Your task to perform on an android device: stop showing notifications on the lock screen Image 0: 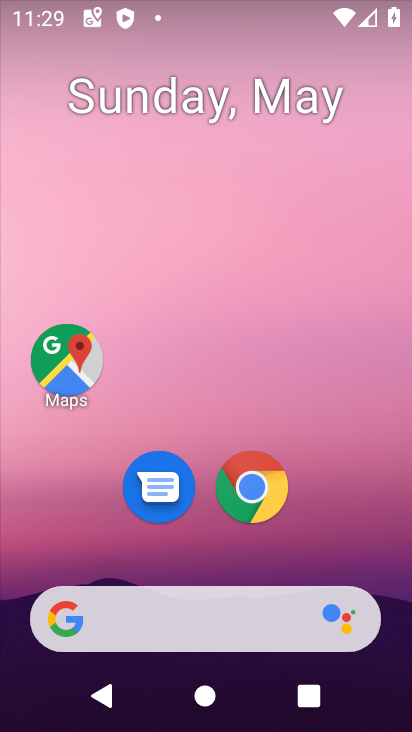
Step 0: drag from (387, 550) to (388, 94)
Your task to perform on an android device: stop showing notifications on the lock screen Image 1: 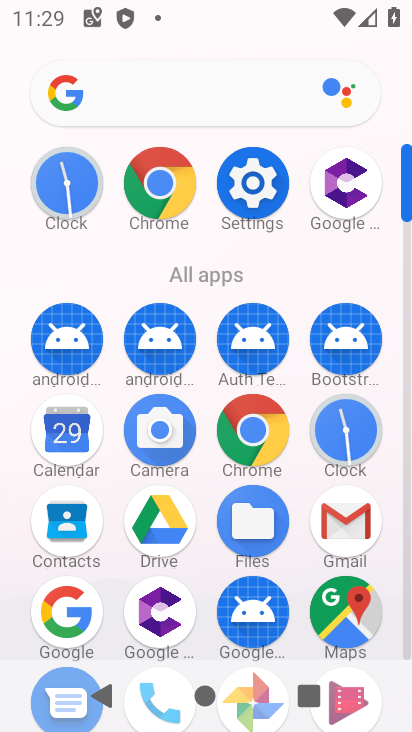
Step 1: click (247, 209)
Your task to perform on an android device: stop showing notifications on the lock screen Image 2: 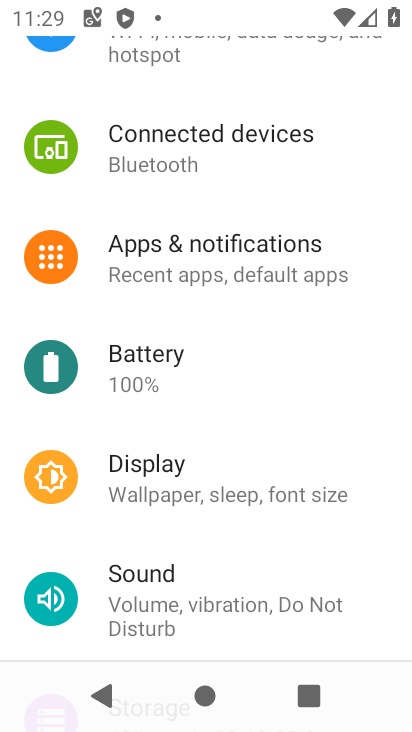
Step 2: drag from (372, 168) to (372, 321)
Your task to perform on an android device: stop showing notifications on the lock screen Image 3: 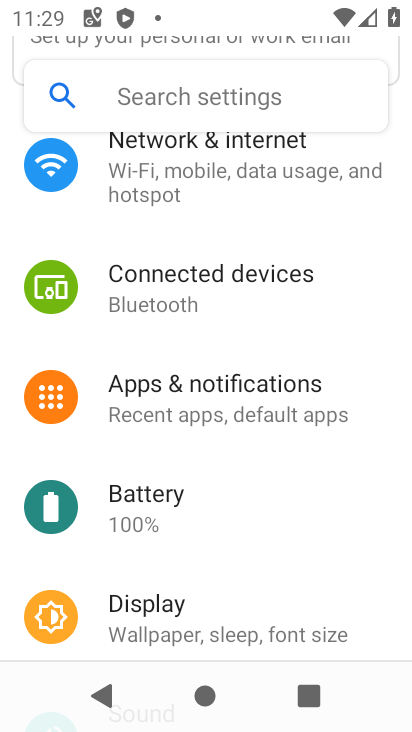
Step 3: drag from (357, 156) to (352, 392)
Your task to perform on an android device: stop showing notifications on the lock screen Image 4: 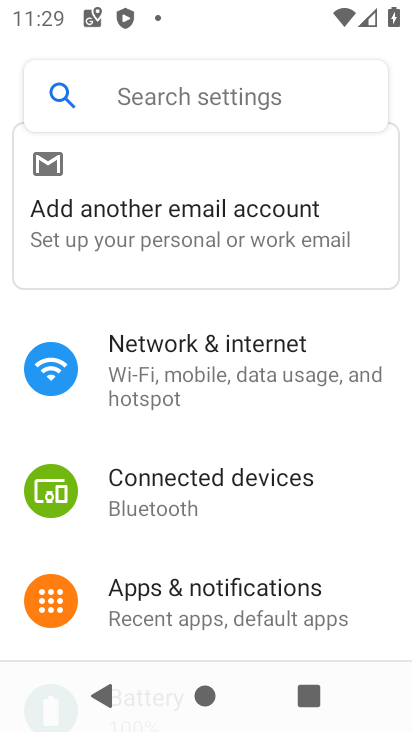
Step 4: drag from (352, 164) to (353, 388)
Your task to perform on an android device: stop showing notifications on the lock screen Image 5: 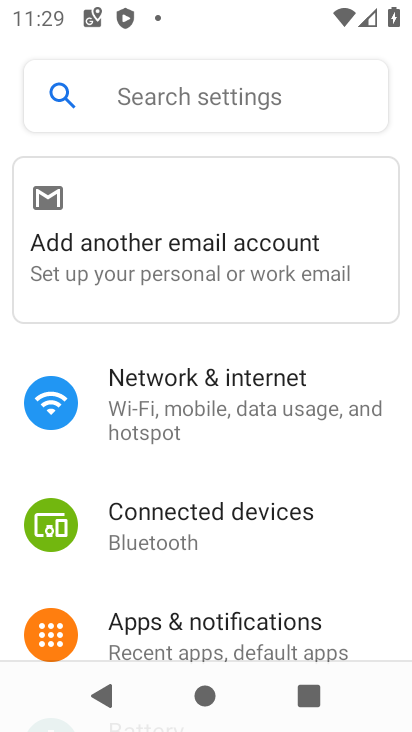
Step 5: drag from (352, 388) to (354, 251)
Your task to perform on an android device: stop showing notifications on the lock screen Image 6: 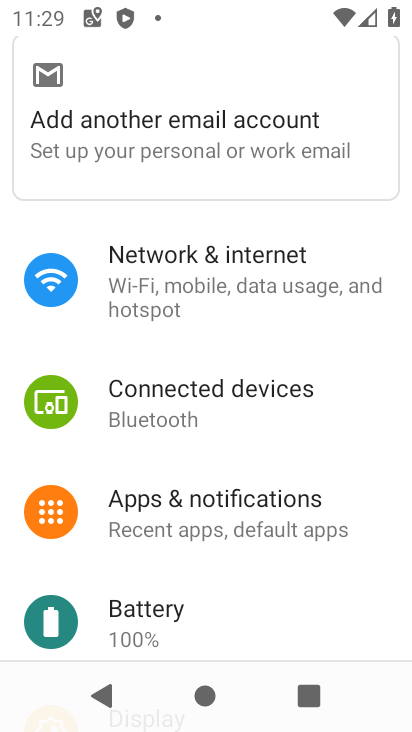
Step 6: drag from (347, 424) to (373, 224)
Your task to perform on an android device: stop showing notifications on the lock screen Image 7: 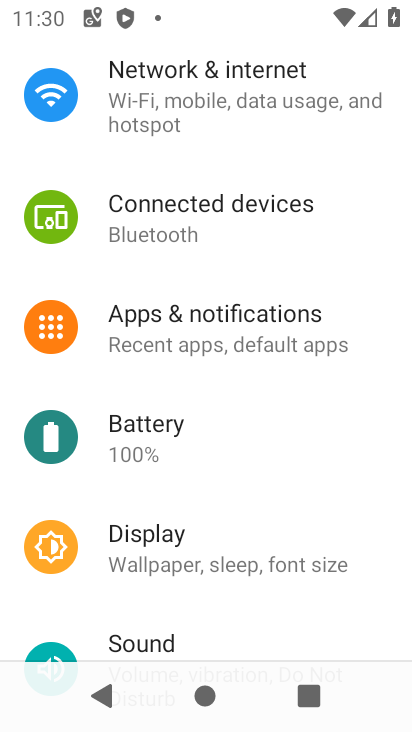
Step 7: drag from (354, 437) to (360, 247)
Your task to perform on an android device: stop showing notifications on the lock screen Image 8: 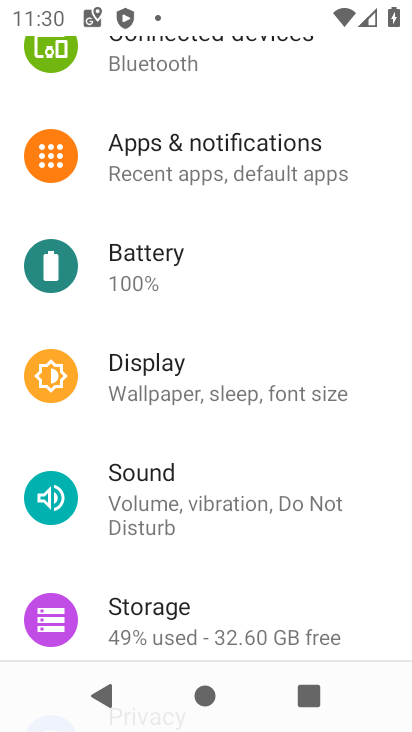
Step 8: drag from (350, 456) to (356, 335)
Your task to perform on an android device: stop showing notifications on the lock screen Image 9: 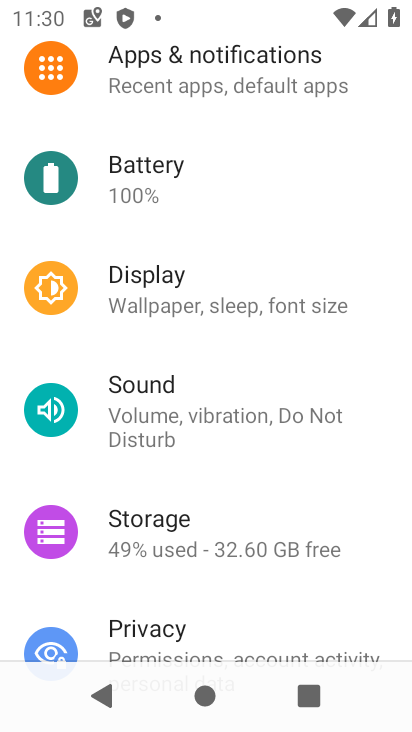
Step 9: drag from (362, 114) to (363, 325)
Your task to perform on an android device: stop showing notifications on the lock screen Image 10: 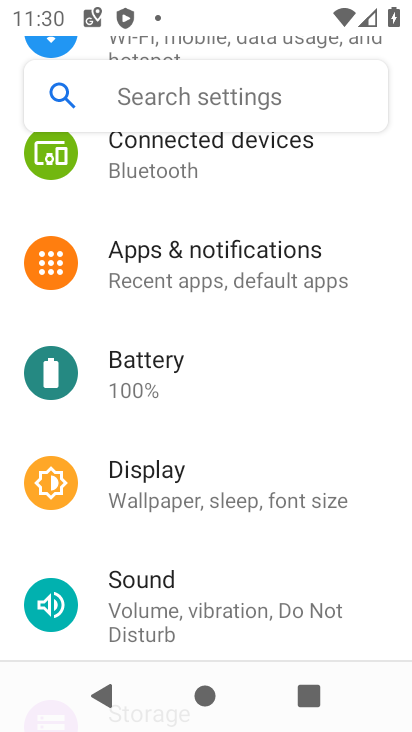
Step 10: click (289, 272)
Your task to perform on an android device: stop showing notifications on the lock screen Image 11: 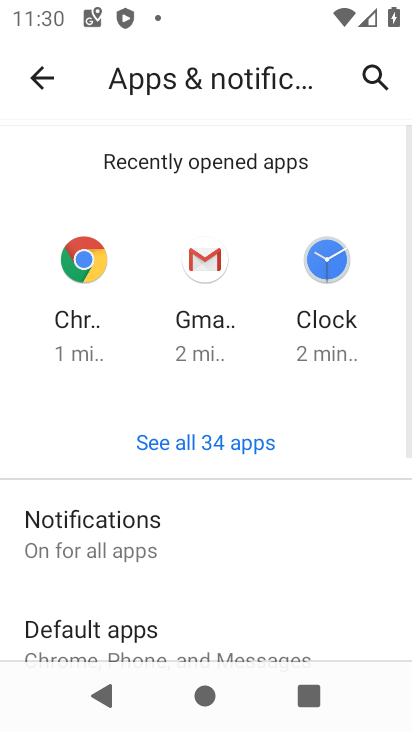
Step 11: drag from (305, 487) to (309, 358)
Your task to perform on an android device: stop showing notifications on the lock screen Image 12: 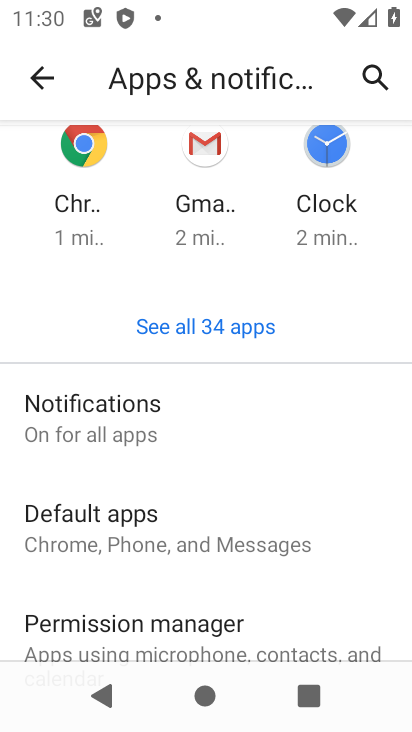
Step 12: drag from (293, 503) to (294, 370)
Your task to perform on an android device: stop showing notifications on the lock screen Image 13: 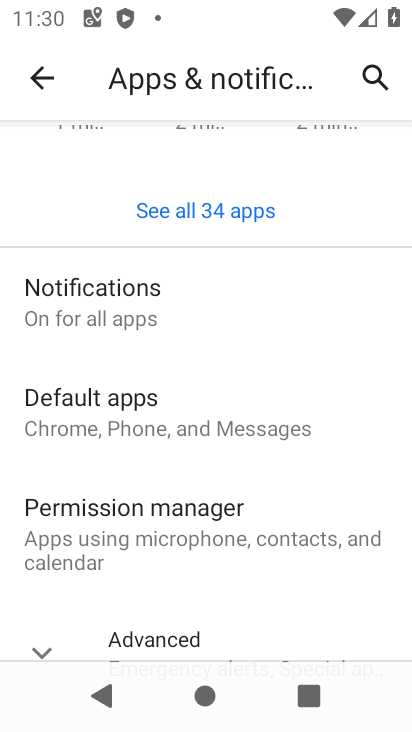
Step 13: click (169, 293)
Your task to perform on an android device: stop showing notifications on the lock screen Image 14: 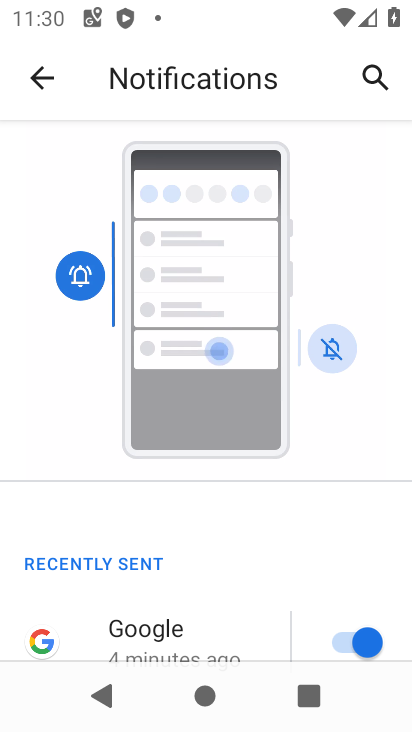
Step 14: drag from (263, 526) to (269, 422)
Your task to perform on an android device: stop showing notifications on the lock screen Image 15: 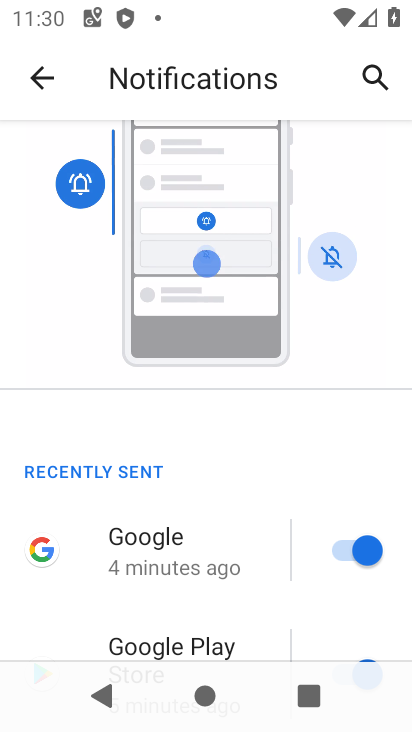
Step 15: drag from (257, 543) to (266, 450)
Your task to perform on an android device: stop showing notifications on the lock screen Image 16: 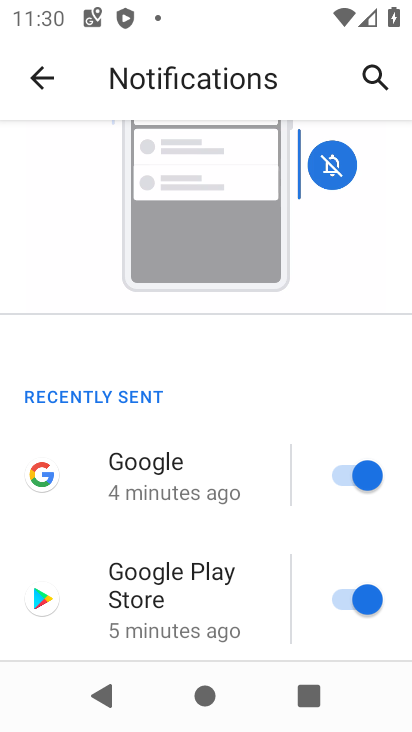
Step 16: drag from (253, 584) to (258, 457)
Your task to perform on an android device: stop showing notifications on the lock screen Image 17: 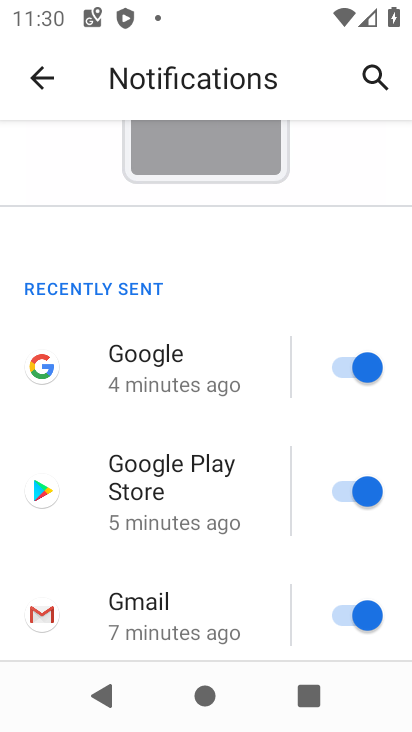
Step 17: drag from (254, 572) to (269, 424)
Your task to perform on an android device: stop showing notifications on the lock screen Image 18: 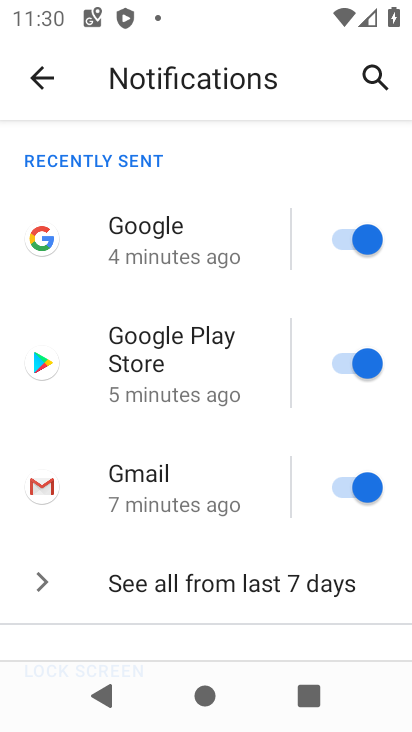
Step 18: drag from (249, 523) to (260, 410)
Your task to perform on an android device: stop showing notifications on the lock screen Image 19: 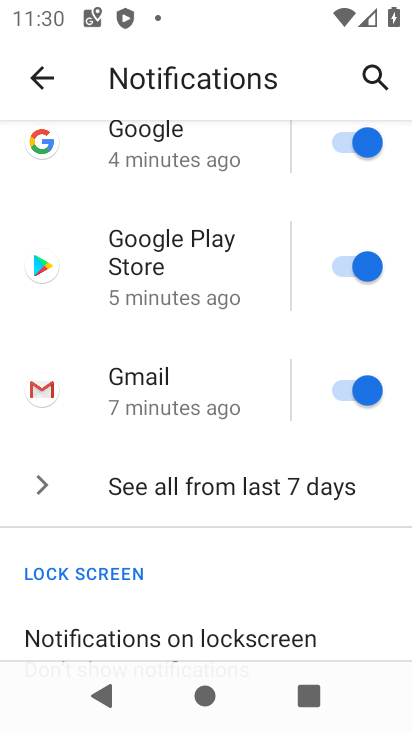
Step 19: drag from (262, 574) to (262, 494)
Your task to perform on an android device: stop showing notifications on the lock screen Image 20: 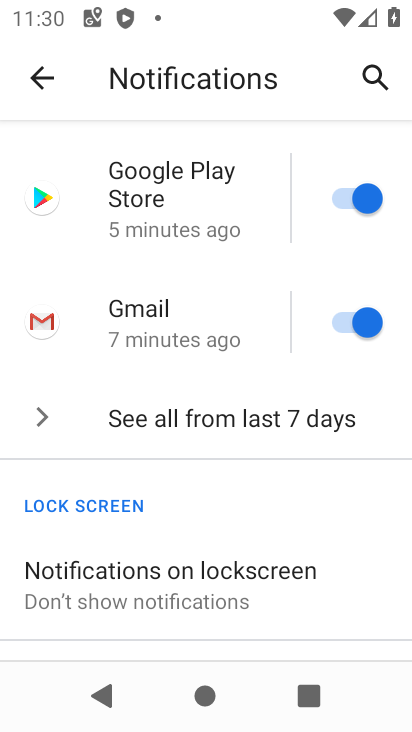
Step 20: drag from (266, 550) to (279, 329)
Your task to perform on an android device: stop showing notifications on the lock screen Image 21: 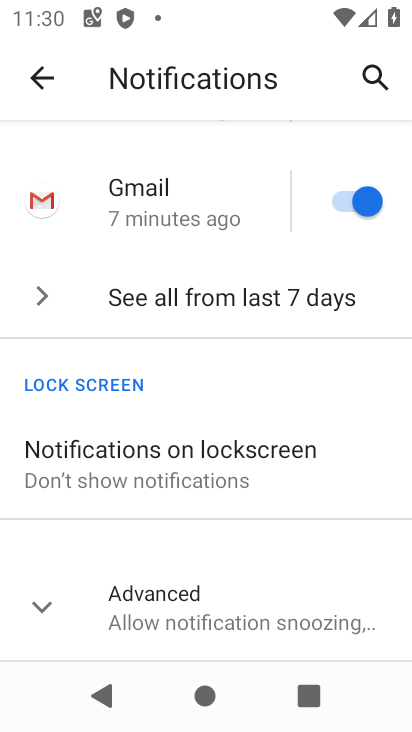
Step 21: click (254, 457)
Your task to perform on an android device: stop showing notifications on the lock screen Image 22: 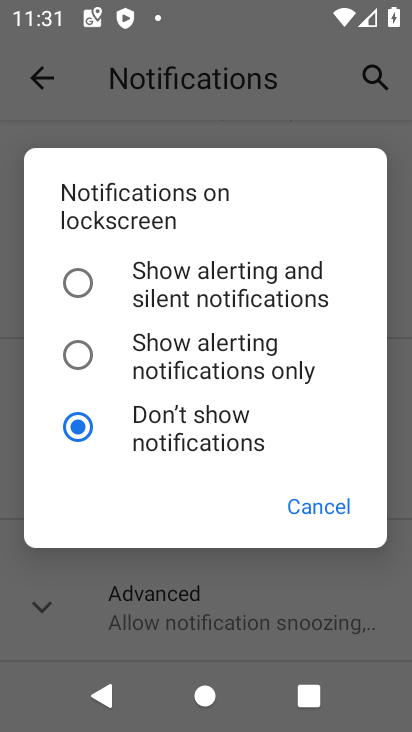
Step 22: task complete